Your task to perform on an android device: toggle data saver in the chrome app Image 0: 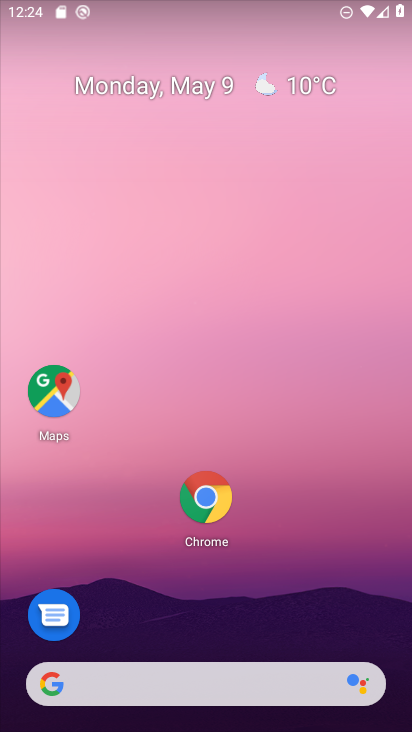
Step 0: drag from (262, 433) to (272, 49)
Your task to perform on an android device: toggle data saver in the chrome app Image 1: 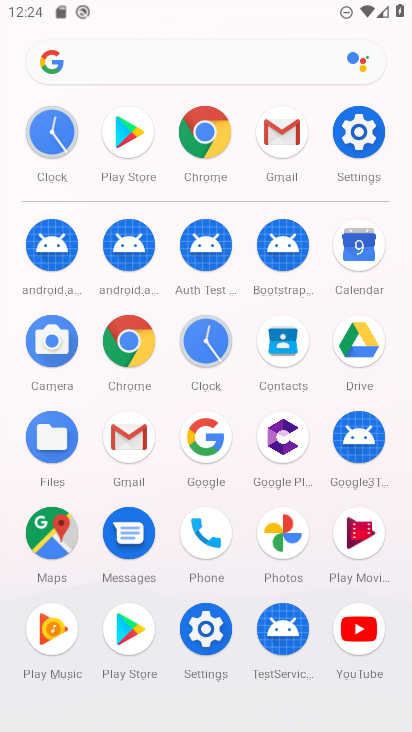
Step 1: click (127, 347)
Your task to perform on an android device: toggle data saver in the chrome app Image 2: 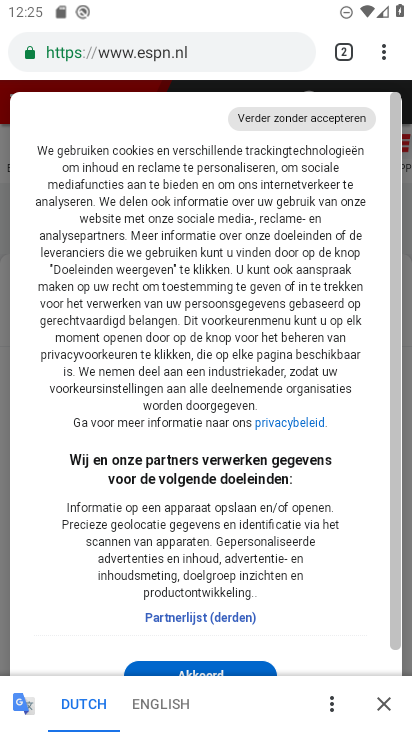
Step 2: drag from (381, 50) to (183, 631)
Your task to perform on an android device: toggle data saver in the chrome app Image 3: 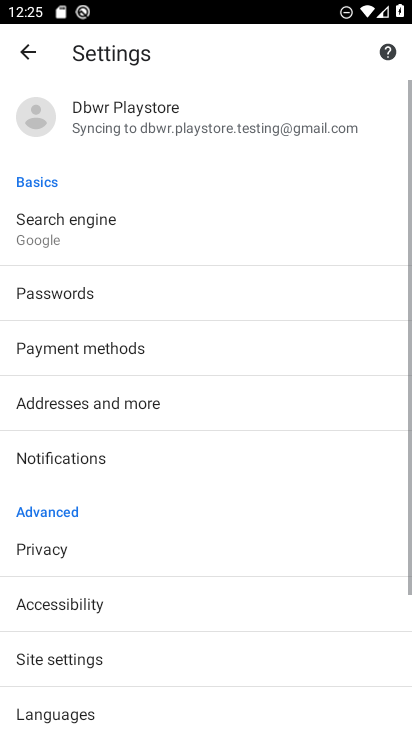
Step 3: drag from (228, 587) to (315, 118)
Your task to perform on an android device: toggle data saver in the chrome app Image 4: 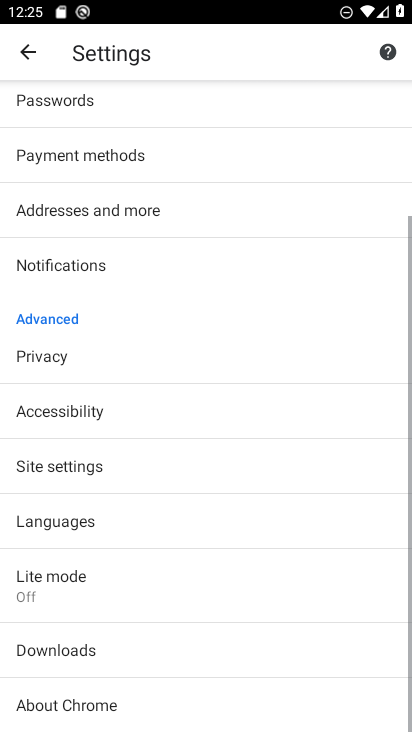
Step 4: click (126, 581)
Your task to perform on an android device: toggle data saver in the chrome app Image 5: 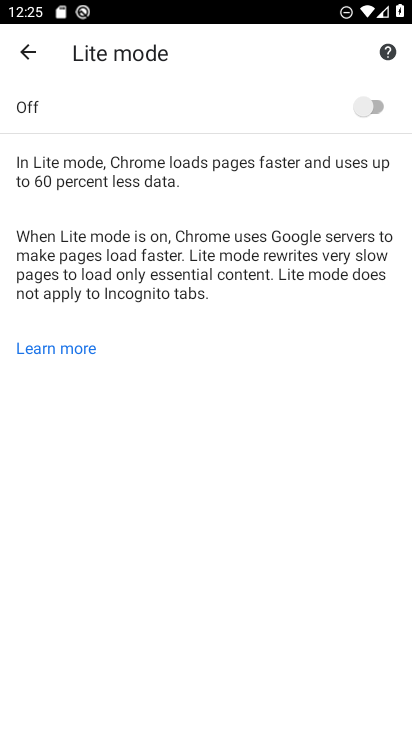
Step 5: task complete